Your task to perform on an android device: open a bookmark in the chrome app Image 0: 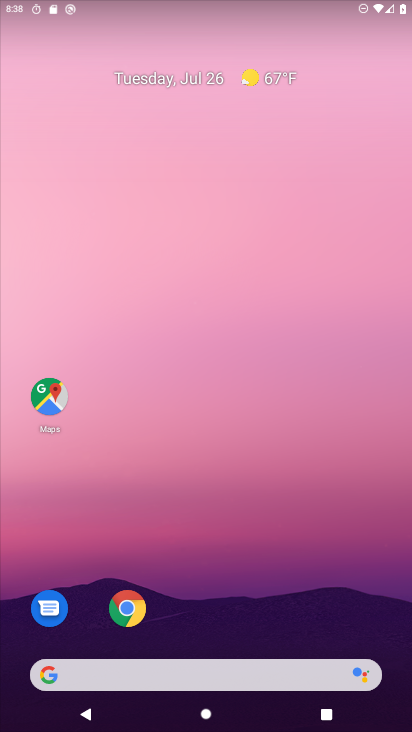
Step 0: click (128, 603)
Your task to perform on an android device: open a bookmark in the chrome app Image 1: 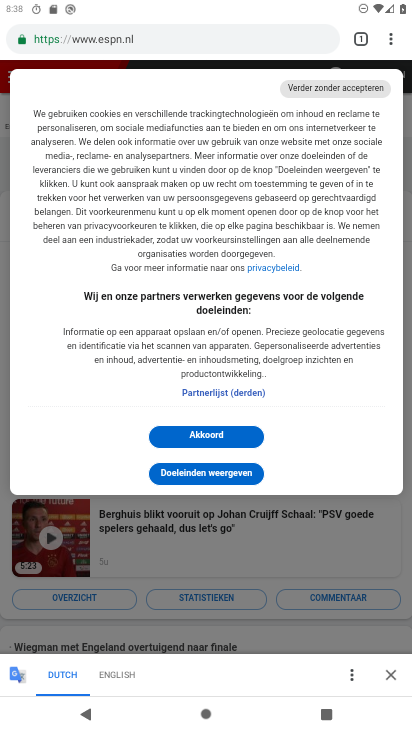
Step 1: click (394, 39)
Your task to perform on an android device: open a bookmark in the chrome app Image 2: 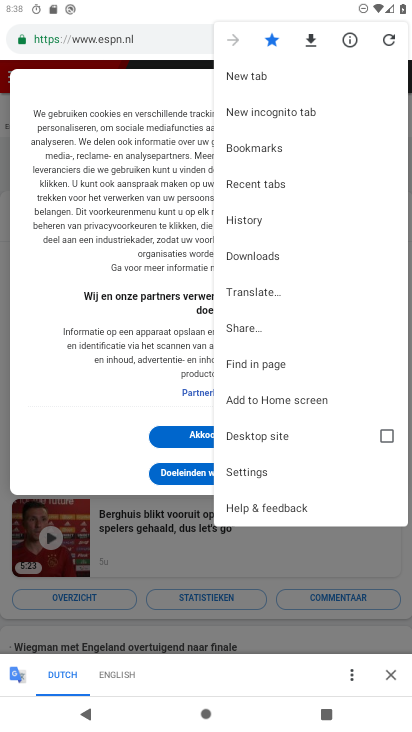
Step 2: click (253, 150)
Your task to perform on an android device: open a bookmark in the chrome app Image 3: 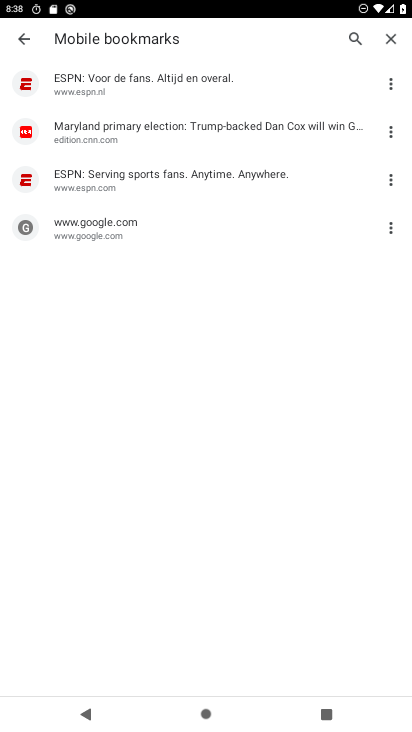
Step 3: click (107, 192)
Your task to perform on an android device: open a bookmark in the chrome app Image 4: 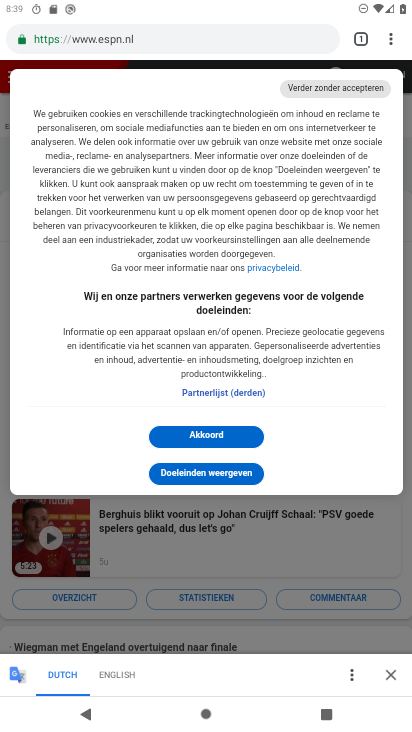
Step 4: task complete